Your task to perform on an android device: Open calendar and show me the first week of next month Image 0: 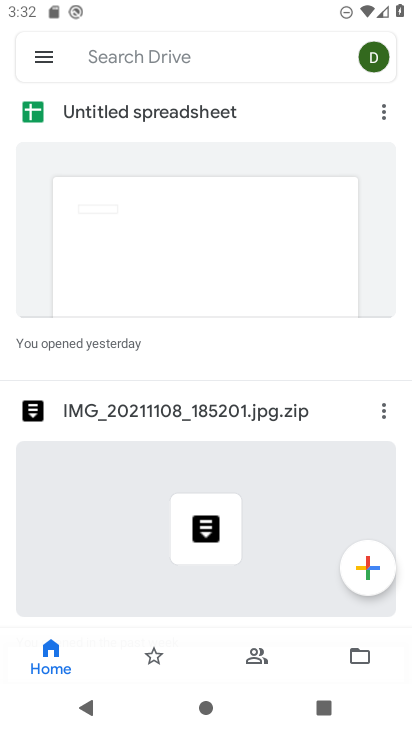
Step 0: press home button
Your task to perform on an android device: Open calendar and show me the first week of next month Image 1: 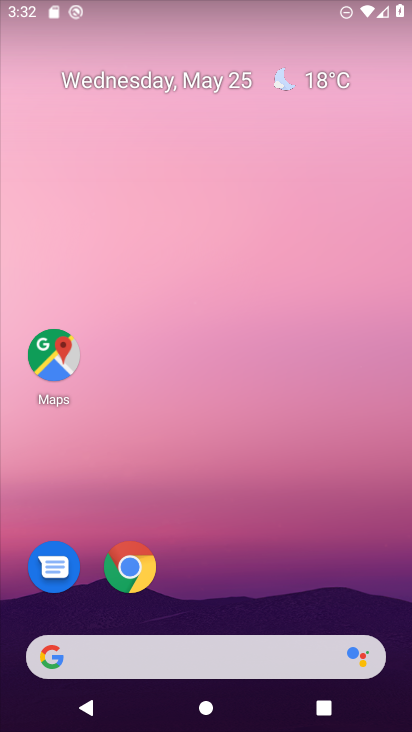
Step 1: drag from (348, 583) to (337, 277)
Your task to perform on an android device: Open calendar and show me the first week of next month Image 2: 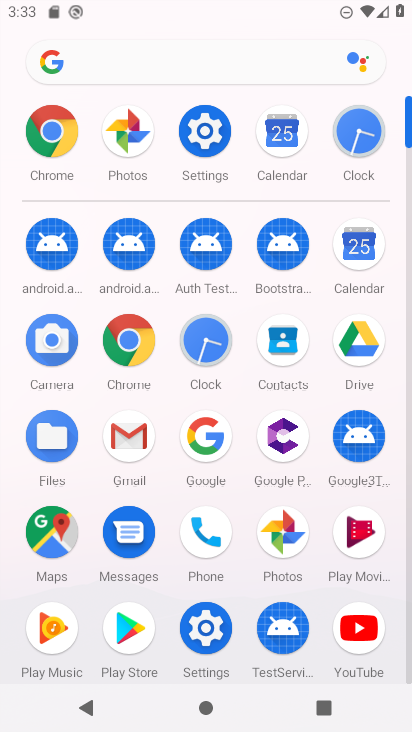
Step 2: click (364, 258)
Your task to perform on an android device: Open calendar and show me the first week of next month Image 3: 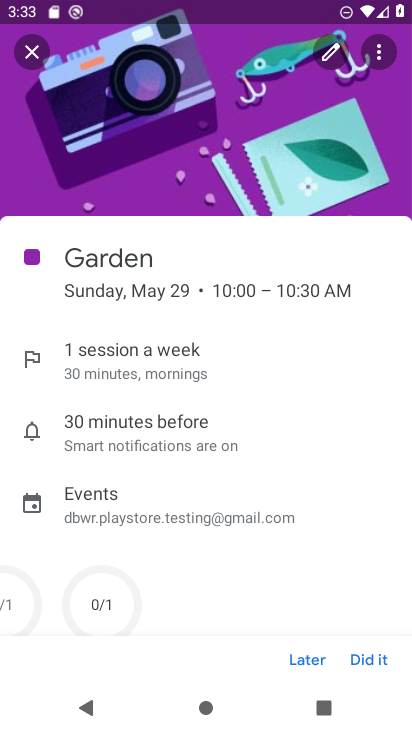
Step 3: click (23, 57)
Your task to perform on an android device: Open calendar and show me the first week of next month Image 4: 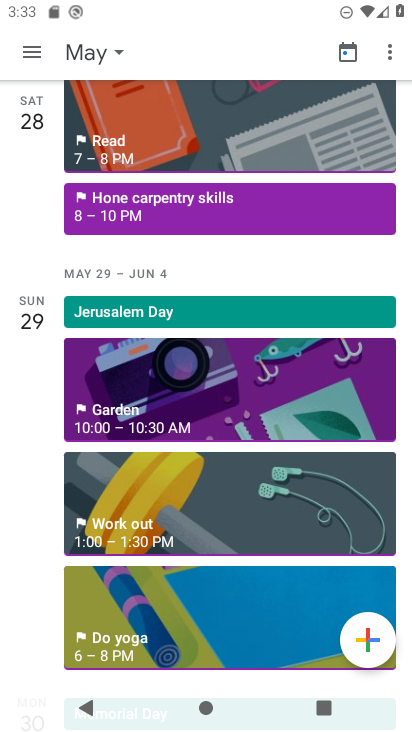
Step 4: click (117, 61)
Your task to perform on an android device: Open calendar and show me the first week of next month Image 5: 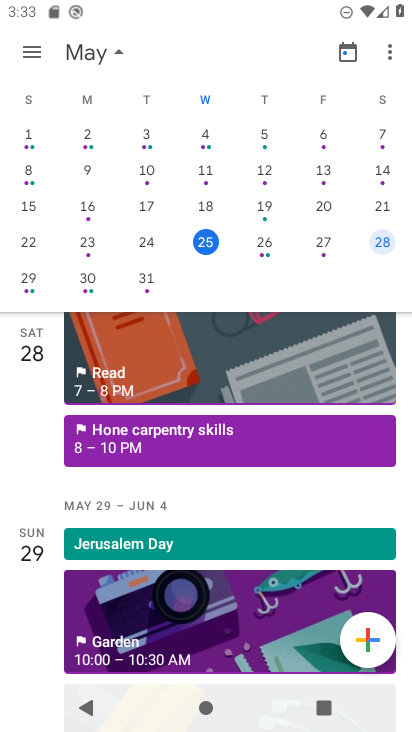
Step 5: drag from (394, 111) to (20, 123)
Your task to perform on an android device: Open calendar and show me the first week of next month Image 6: 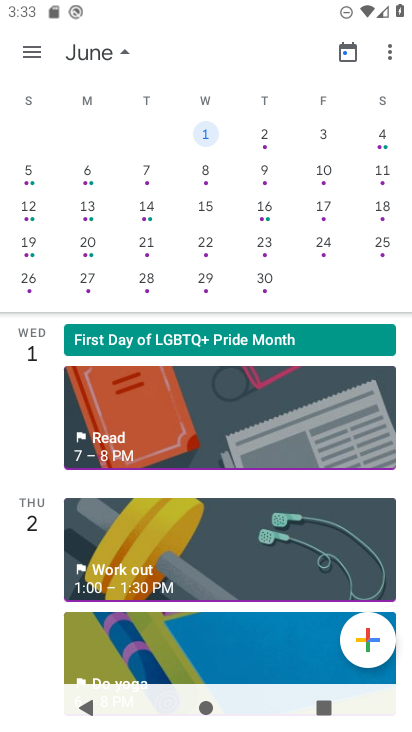
Step 6: click (268, 136)
Your task to perform on an android device: Open calendar and show me the first week of next month Image 7: 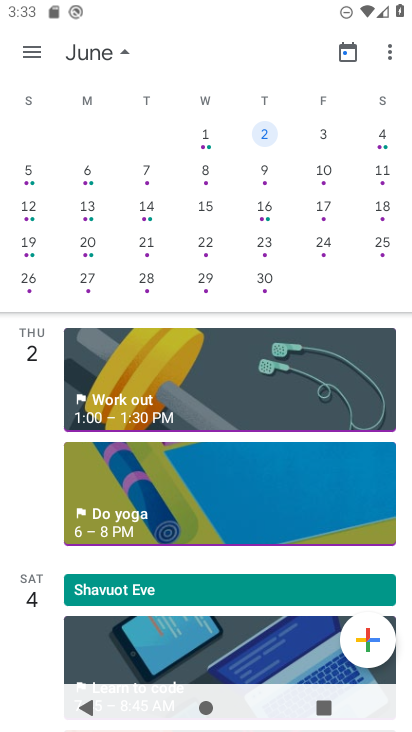
Step 7: task complete